Your task to perform on an android device: turn off data saver in the chrome app Image 0: 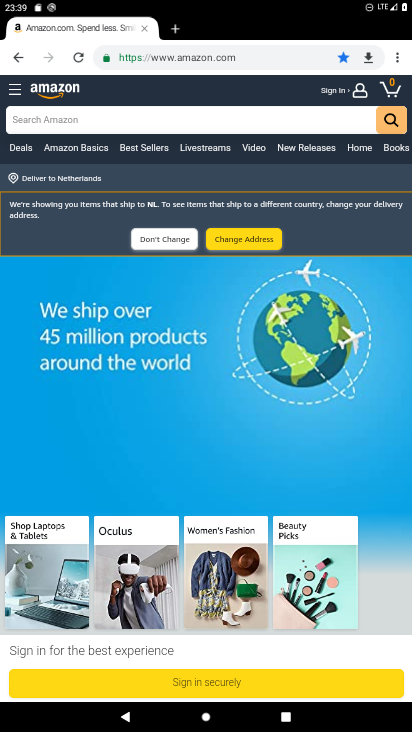
Step 0: press home button
Your task to perform on an android device: turn off data saver in the chrome app Image 1: 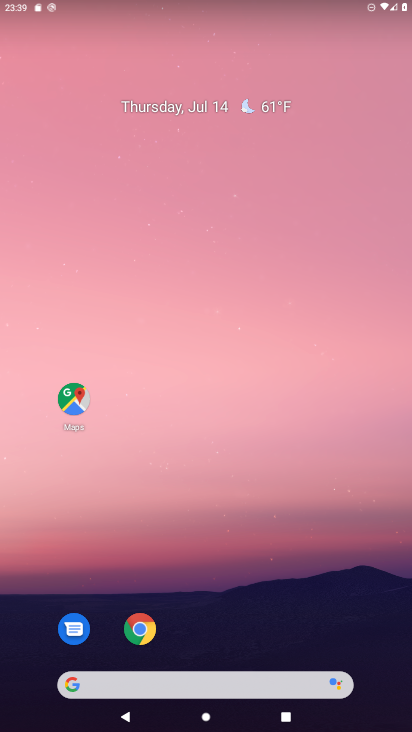
Step 1: click (147, 638)
Your task to perform on an android device: turn off data saver in the chrome app Image 2: 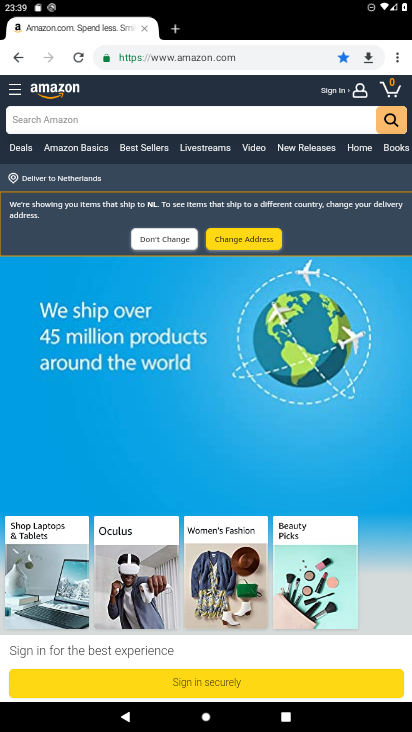
Step 2: click (402, 52)
Your task to perform on an android device: turn off data saver in the chrome app Image 3: 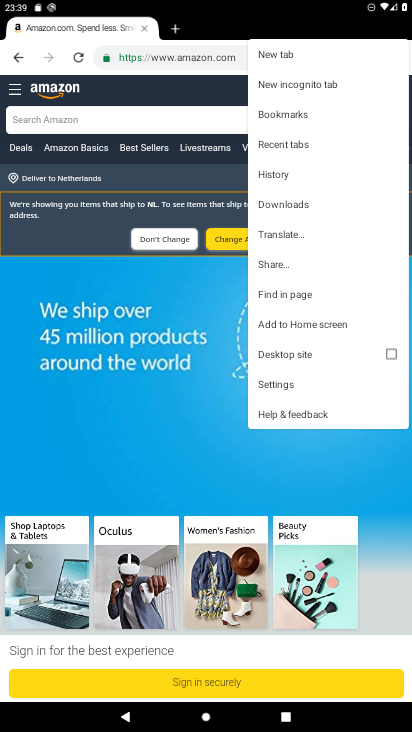
Step 3: click (301, 383)
Your task to perform on an android device: turn off data saver in the chrome app Image 4: 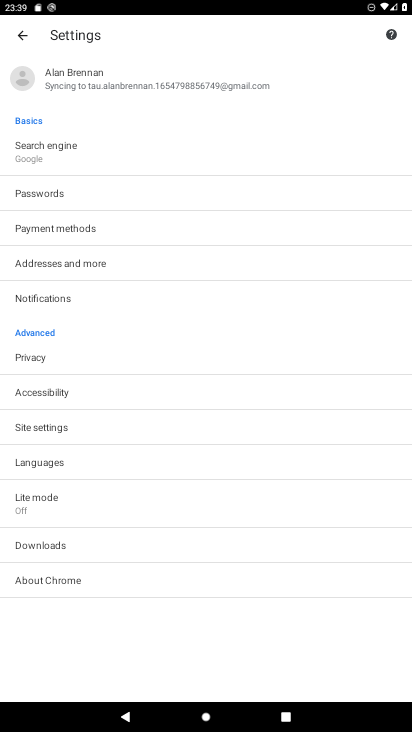
Step 4: click (176, 501)
Your task to perform on an android device: turn off data saver in the chrome app Image 5: 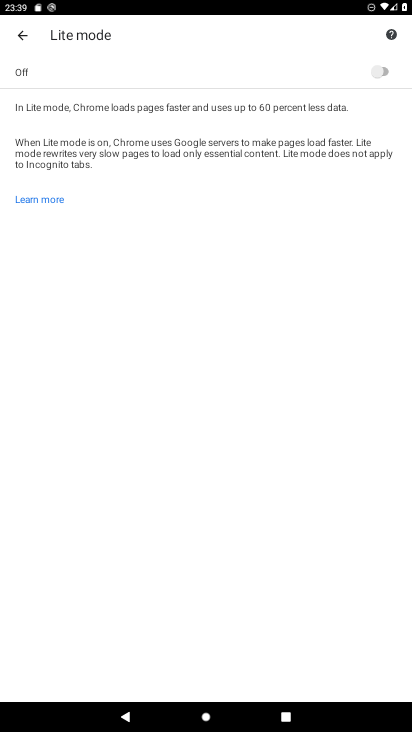
Step 5: task complete